Your task to perform on an android device: Play the last video I watched on Youtube Image 0: 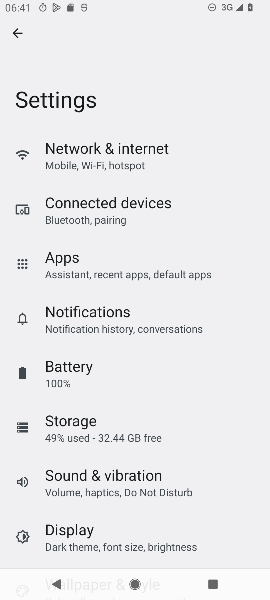
Step 0: press home button
Your task to perform on an android device: Play the last video I watched on Youtube Image 1: 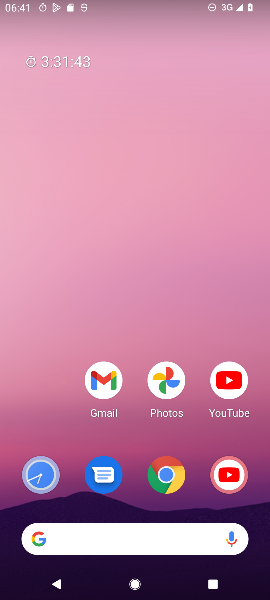
Step 1: drag from (51, 424) to (93, 104)
Your task to perform on an android device: Play the last video I watched on Youtube Image 2: 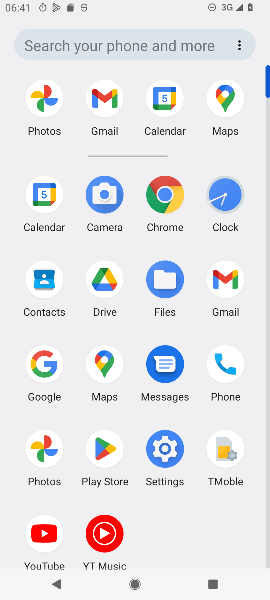
Step 2: click (51, 528)
Your task to perform on an android device: Play the last video I watched on Youtube Image 3: 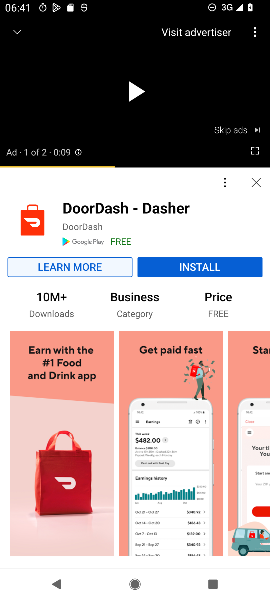
Step 3: click (139, 93)
Your task to perform on an android device: Play the last video I watched on Youtube Image 4: 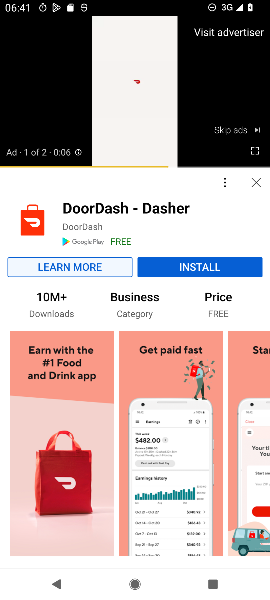
Step 4: task complete